Your task to perform on an android device: turn off sleep mode Image 0: 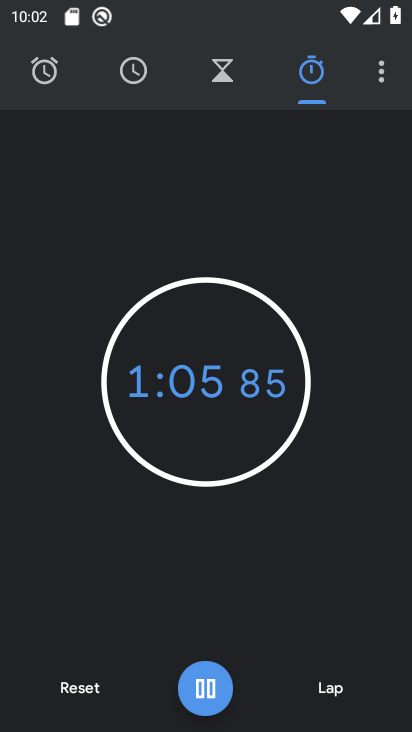
Step 0: press home button
Your task to perform on an android device: turn off sleep mode Image 1: 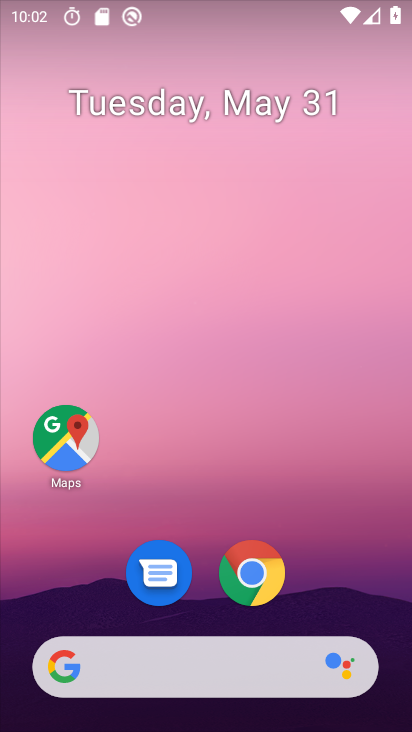
Step 1: drag from (197, 588) to (212, 99)
Your task to perform on an android device: turn off sleep mode Image 2: 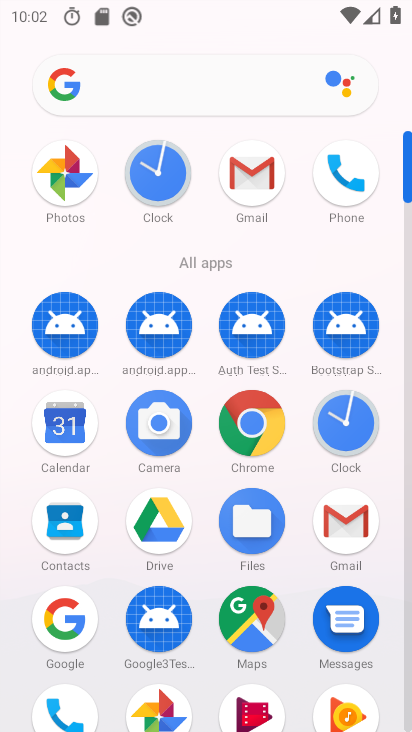
Step 2: drag from (200, 677) to (217, 221)
Your task to perform on an android device: turn off sleep mode Image 3: 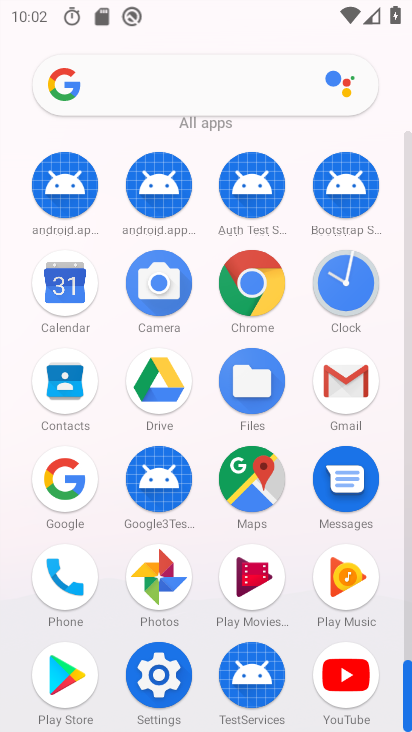
Step 3: click (170, 674)
Your task to perform on an android device: turn off sleep mode Image 4: 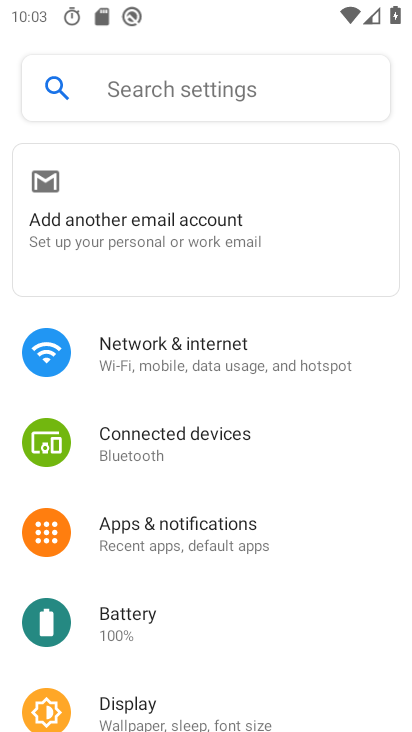
Step 4: task complete